Your task to perform on an android device: open app "Airtel Thanks" (install if not already installed) and enter user name: "acclaimed@inbox.com" and password: "dichotomize" Image 0: 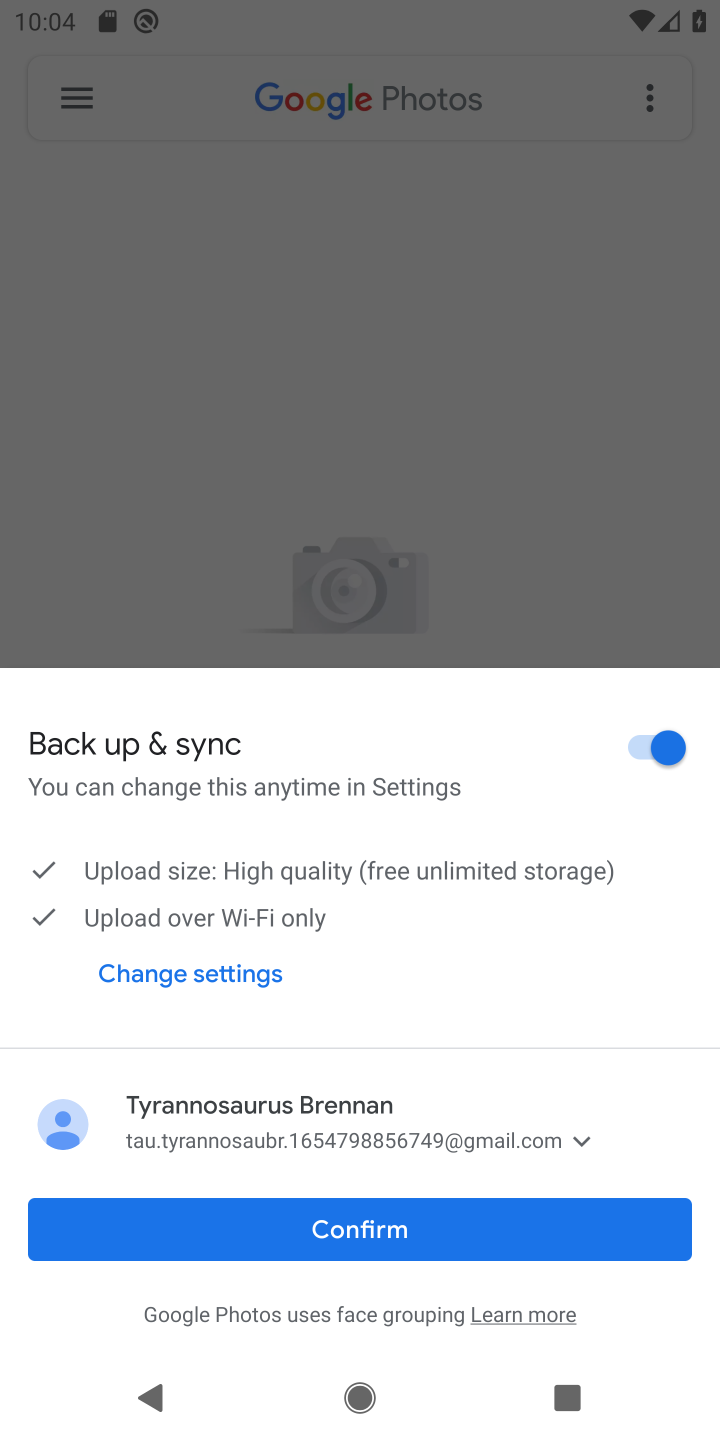
Step 0: press home button
Your task to perform on an android device: open app "Airtel Thanks" (install if not already installed) and enter user name: "acclaimed@inbox.com" and password: "dichotomize" Image 1: 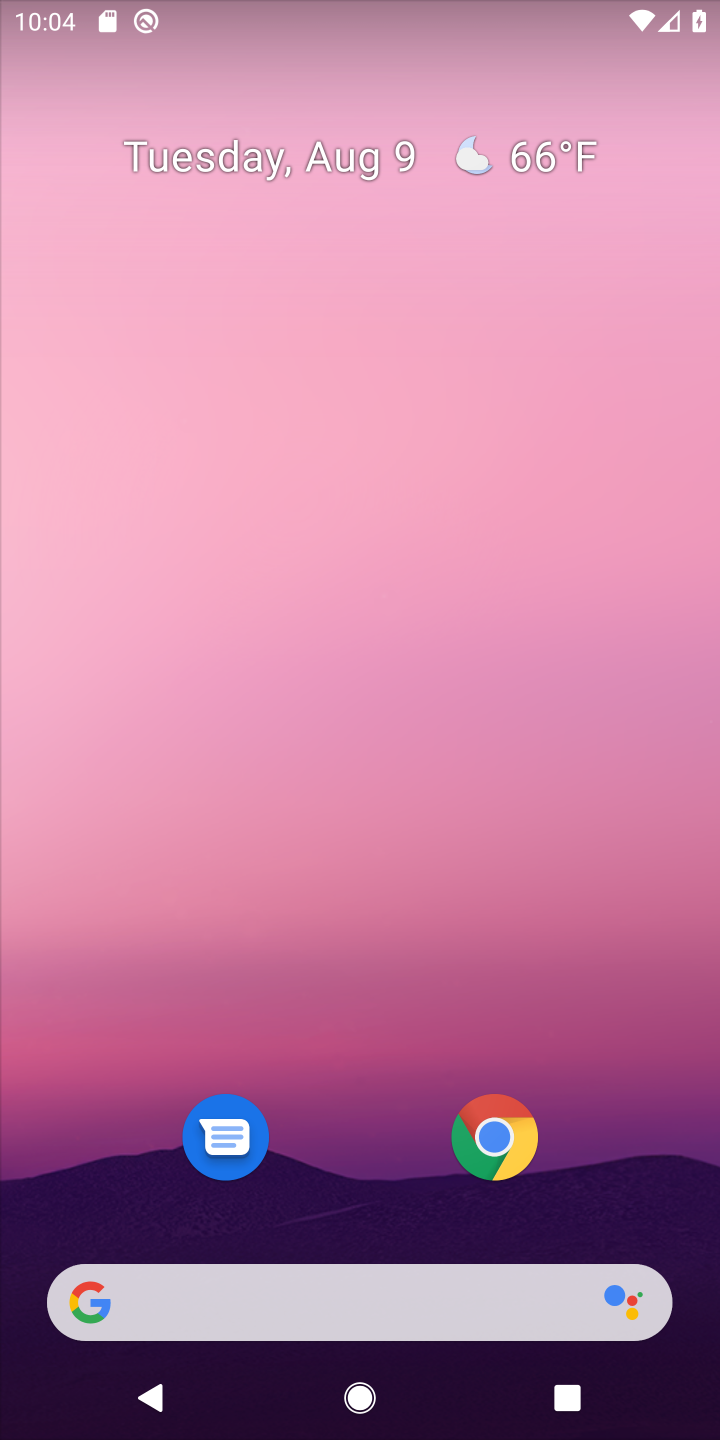
Step 1: drag from (352, 821) to (352, 351)
Your task to perform on an android device: open app "Airtel Thanks" (install if not already installed) and enter user name: "acclaimed@inbox.com" and password: "dichotomize" Image 2: 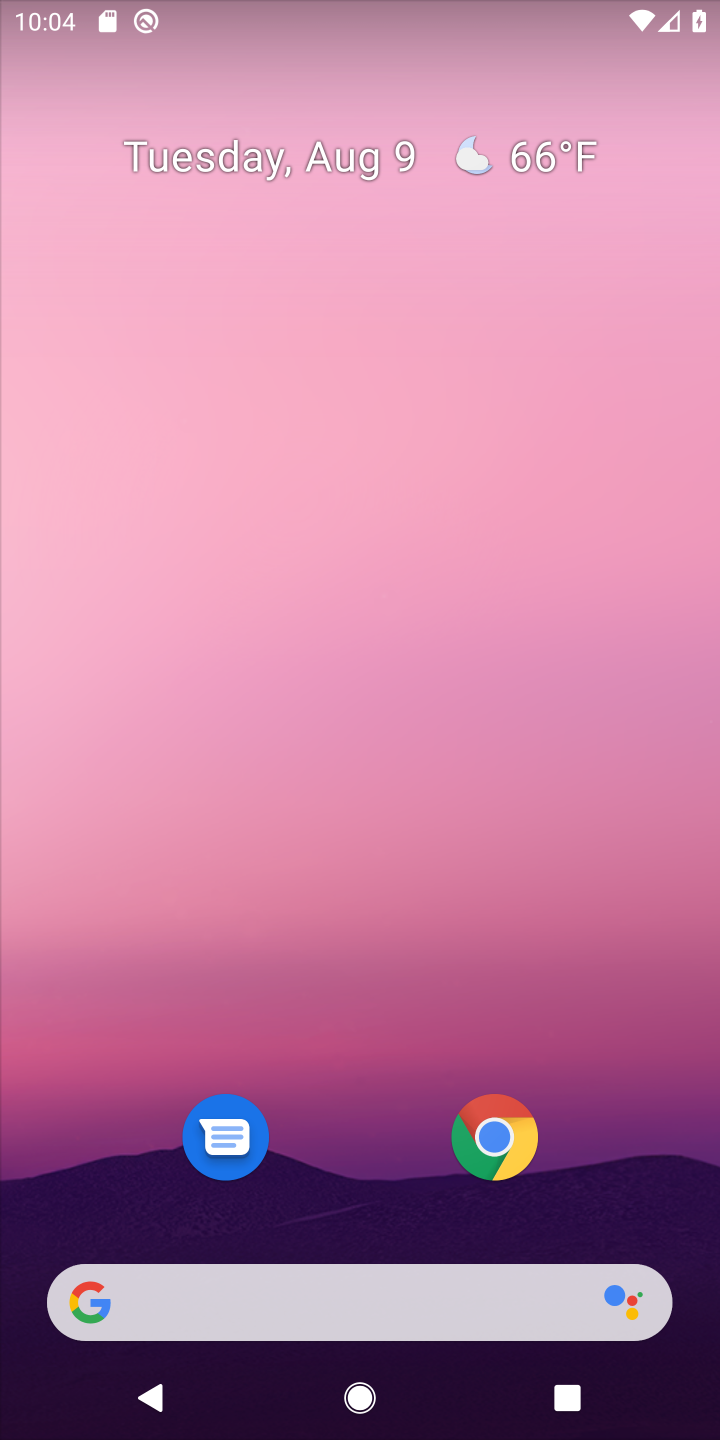
Step 2: drag from (359, 825) to (366, 338)
Your task to perform on an android device: open app "Airtel Thanks" (install if not already installed) and enter user name: "acclaimed@inbox.com" and password: "dichotomize" Image 3: 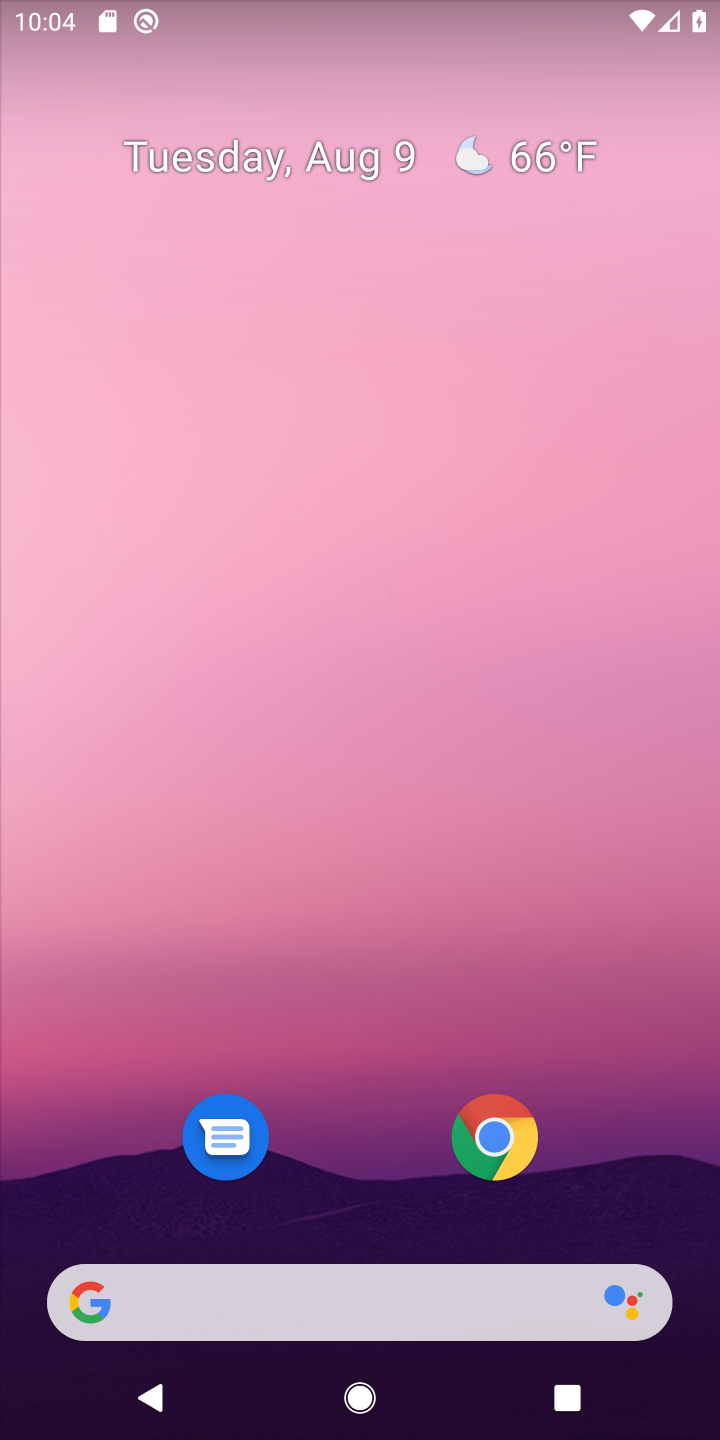
Step 3: drag from (339, 1017) to (339, 313)
Your task to perform on an android device: open app "Airtel Thanks" (install if not already installed) and enter user name: "acclaimed@inbox.com" and password: "dichotomize" Image 4: 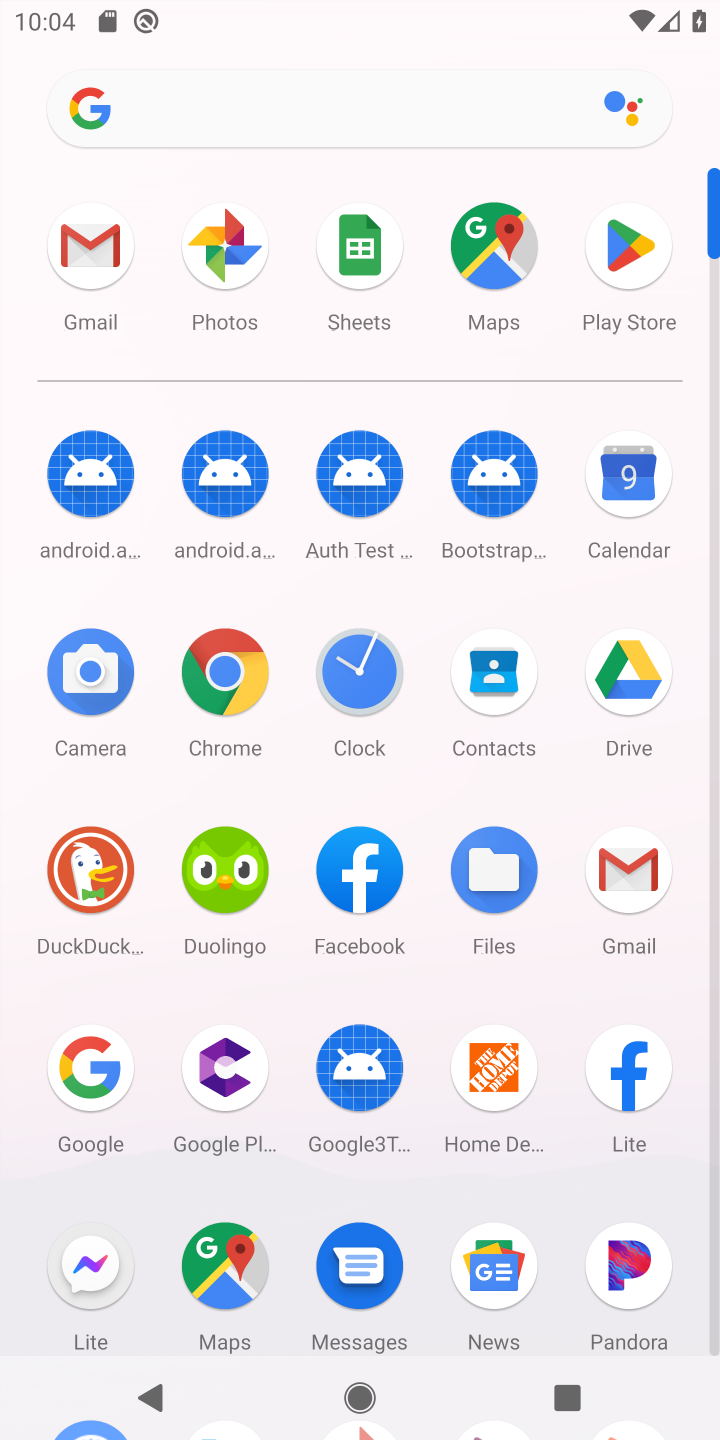
Step 4: click (631, 234)
Your task to perform on an android device: open app "Airtel Thanks" (install if not already installed) and enter user name: "acclaimed@inbox.com" and password: "dichotomize" Image 5: 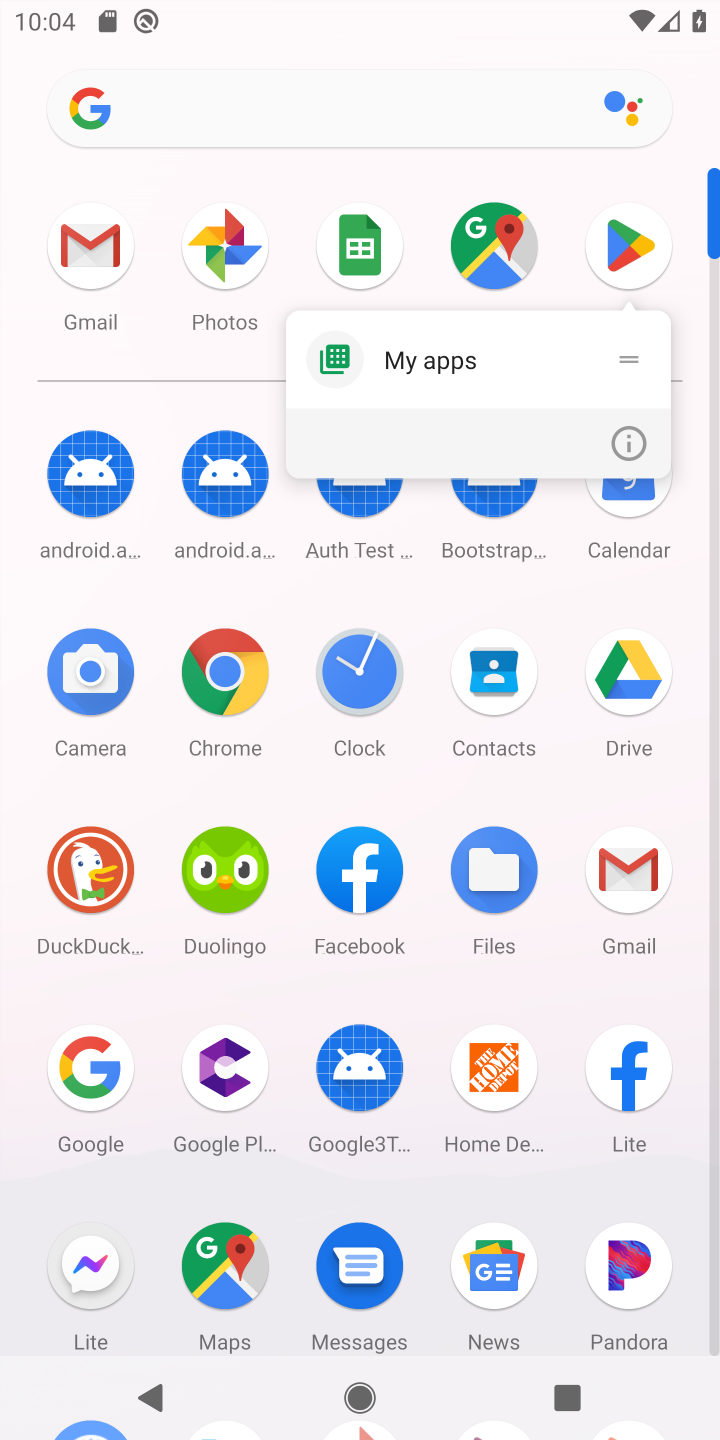
Step 5: click (624, 245)
Your task to perform on an android device: open app "Airtel Thanks" (install if not already installed) and enter user name: "acclaimed@inbox.com" and password: "dichotomize" Image 6: 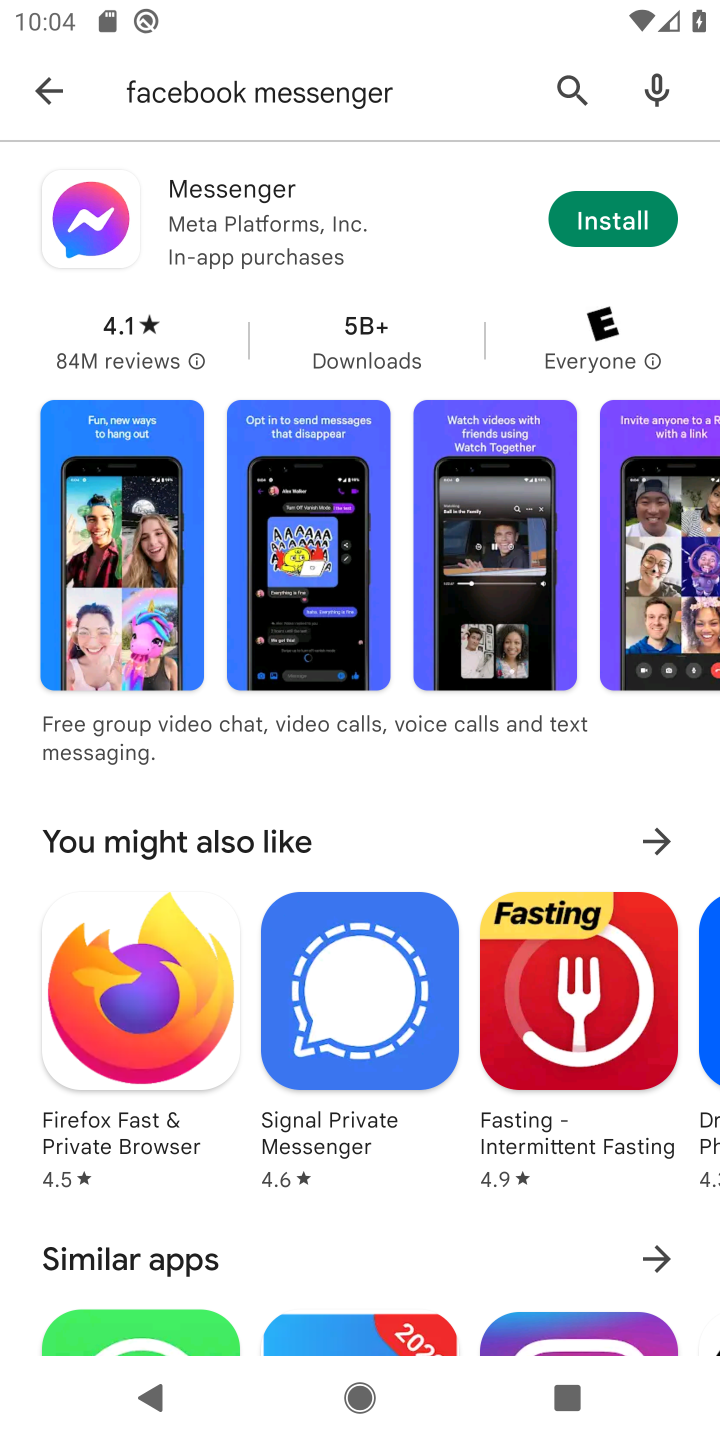
Step 6: click (565, 90)
Your task to perform on an android device: open app "Airtel Thanks" (install if not already installed) and enter user name: "acclaimed@inbox.com" and password: "dichotomize" Image 7: 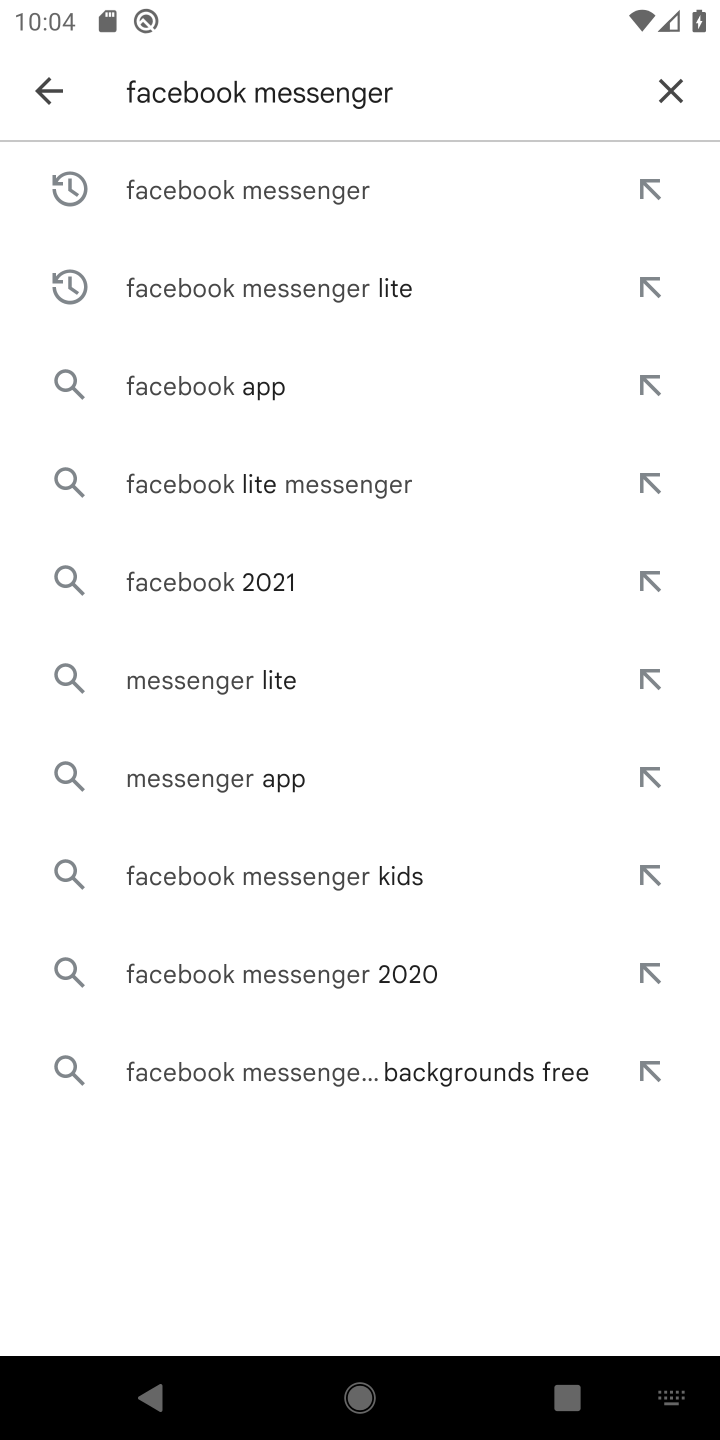
Step 7: click (657, 91)
Your task to perform on an android device: open app "Airtel Thanks" (install if not already installed) and enter user name: "acclaimed@inbox.com" and password: "dichotomize" Image 8: 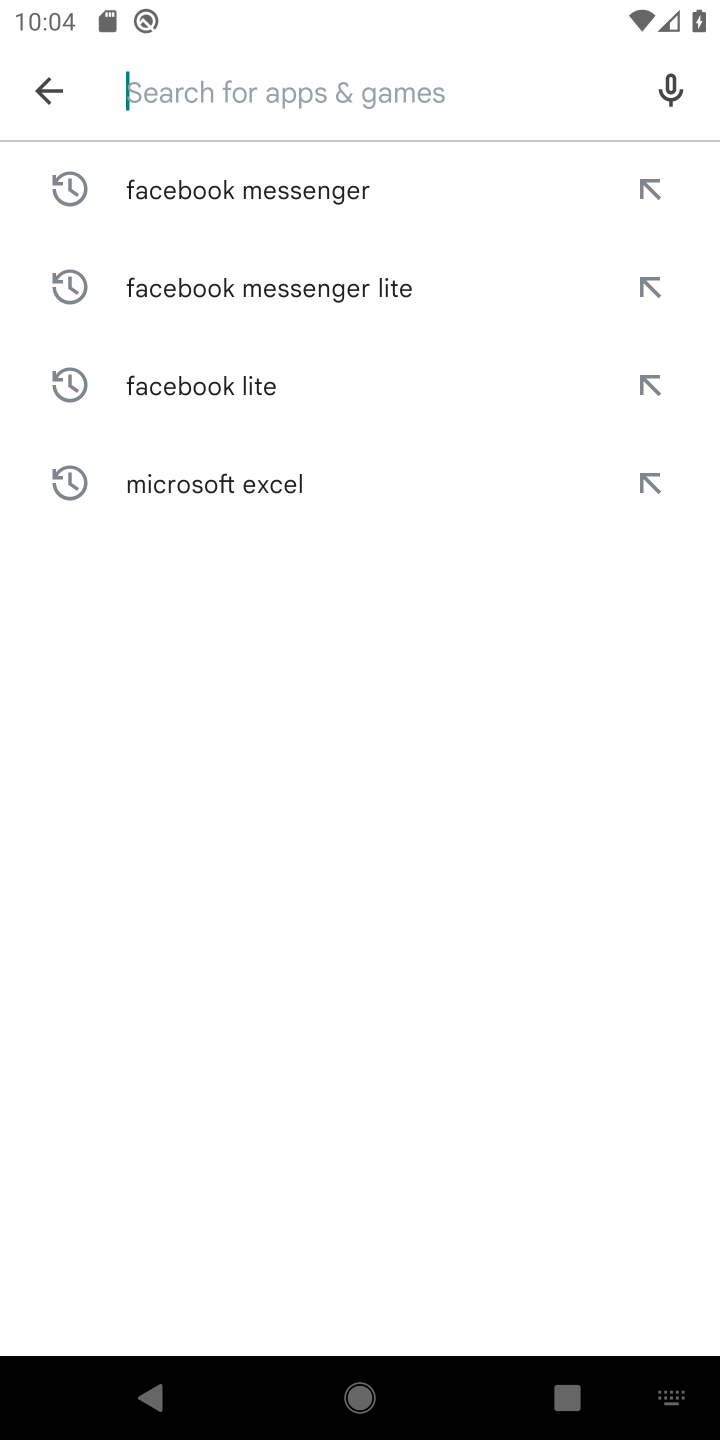
Step 8: type "Airtel Thanks"
Your task to perform on an android device: open app "Airtel Thanks" (install if not already installed) and enter user name: "acclaimed@inbox.com" and password: "dichotomize" Image 9: 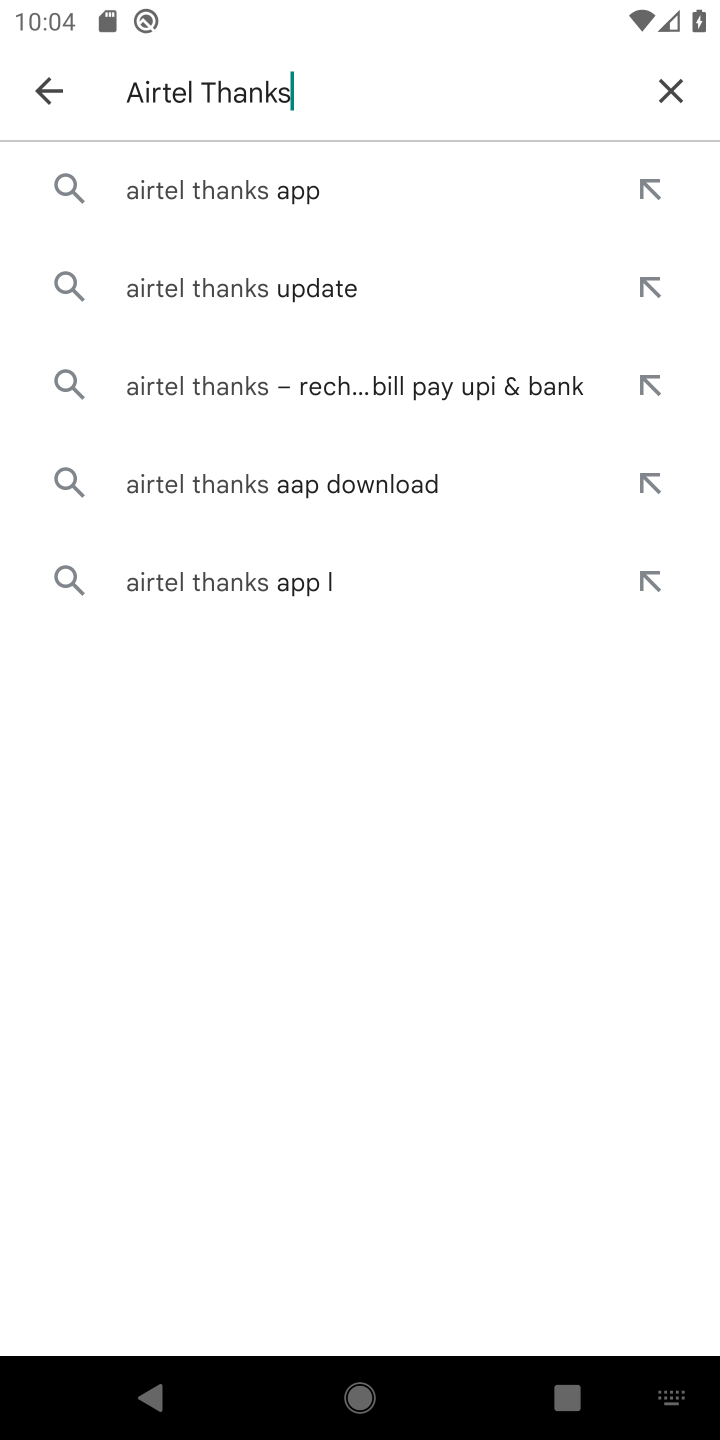
Step 9: click (222, 173)
Your task to perform on an android device: open app "Airtel Thanks" (install if not already installed) and enter user name: "acclaimed@inbox.com" and password: "dichotomize" Image 10: 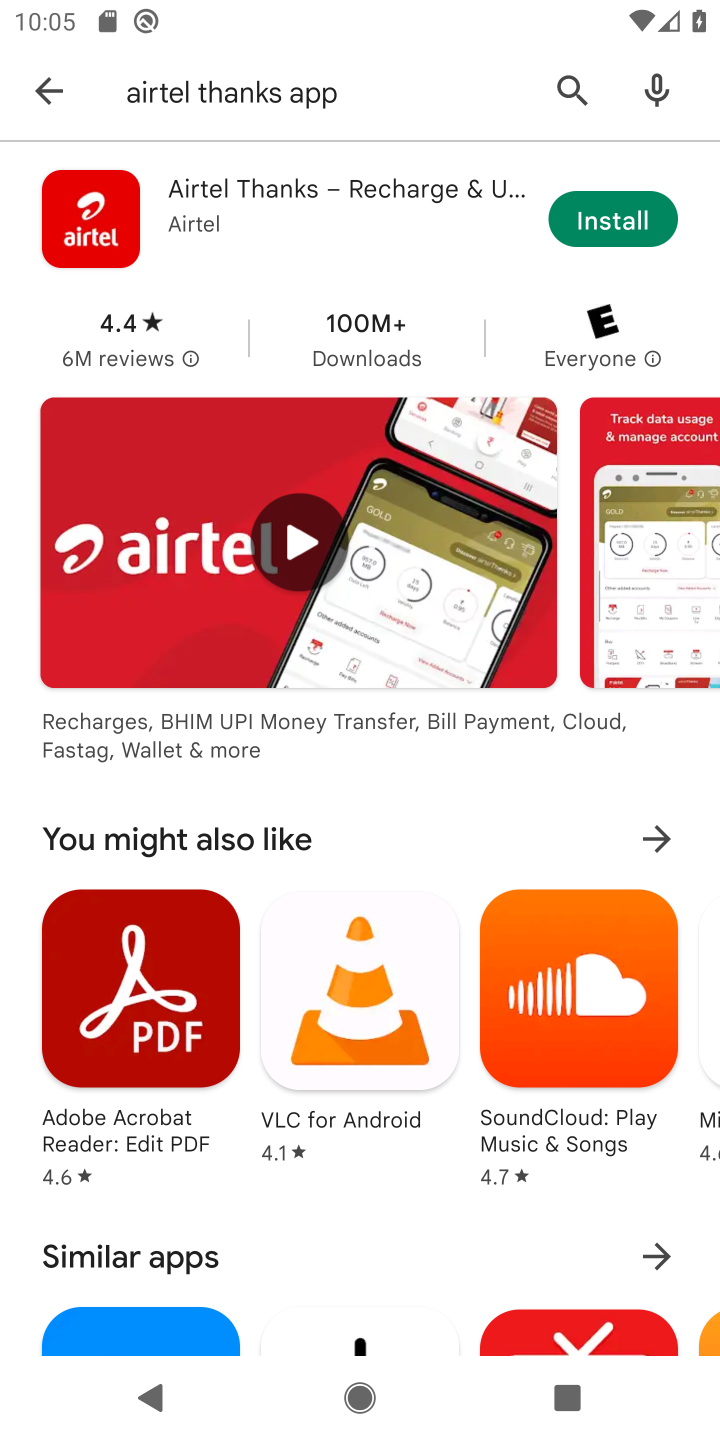
Step 10: click (590, 235)
Your task to perform on an android device: open app "Airtel Thanks" (install if not already installed) and enter user name: "acclaimed@inbox.com" and password: "dichotomize" Image 11: 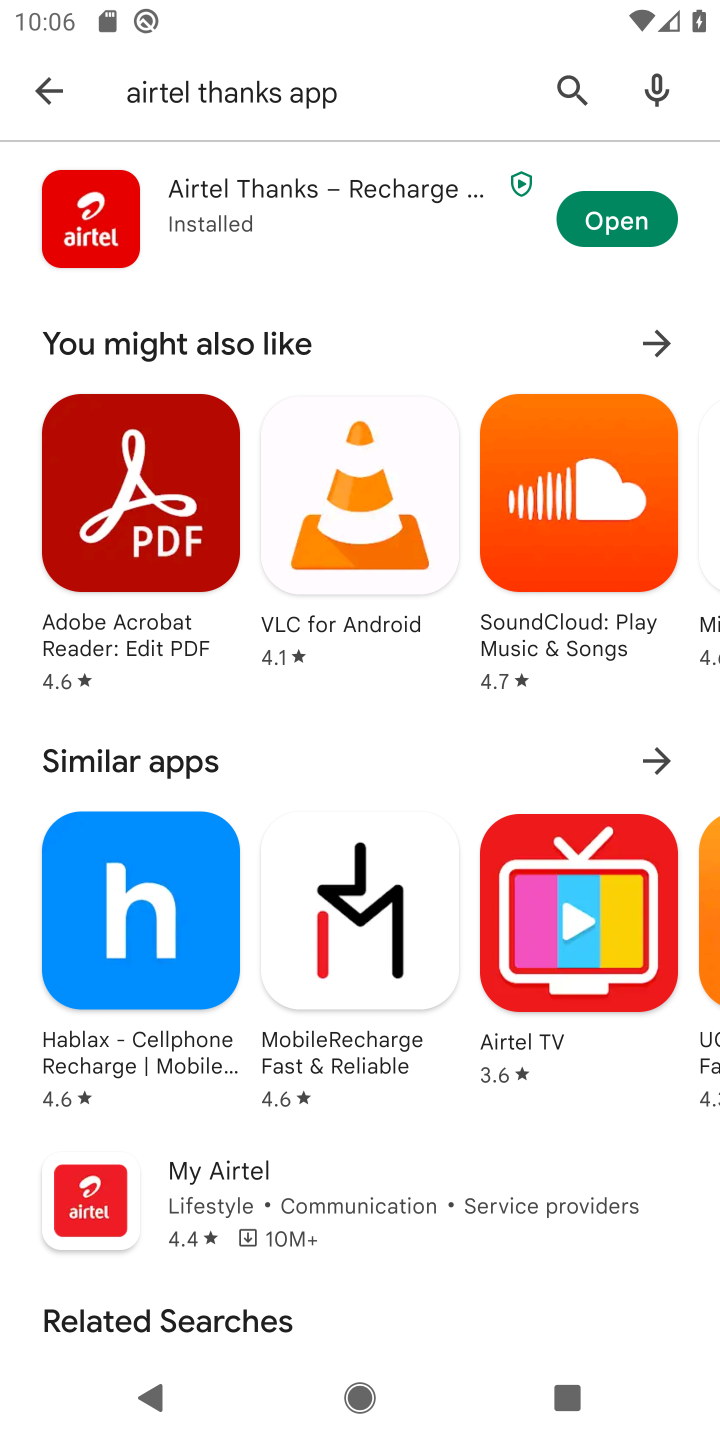
Step 11: click (586, 221)
Your task to perform on an android device: open app "Airtel Thanks" (install if not already installed) and enter user name: "acclaimed@inbox.com" and password: "dichotomize" Image 12: 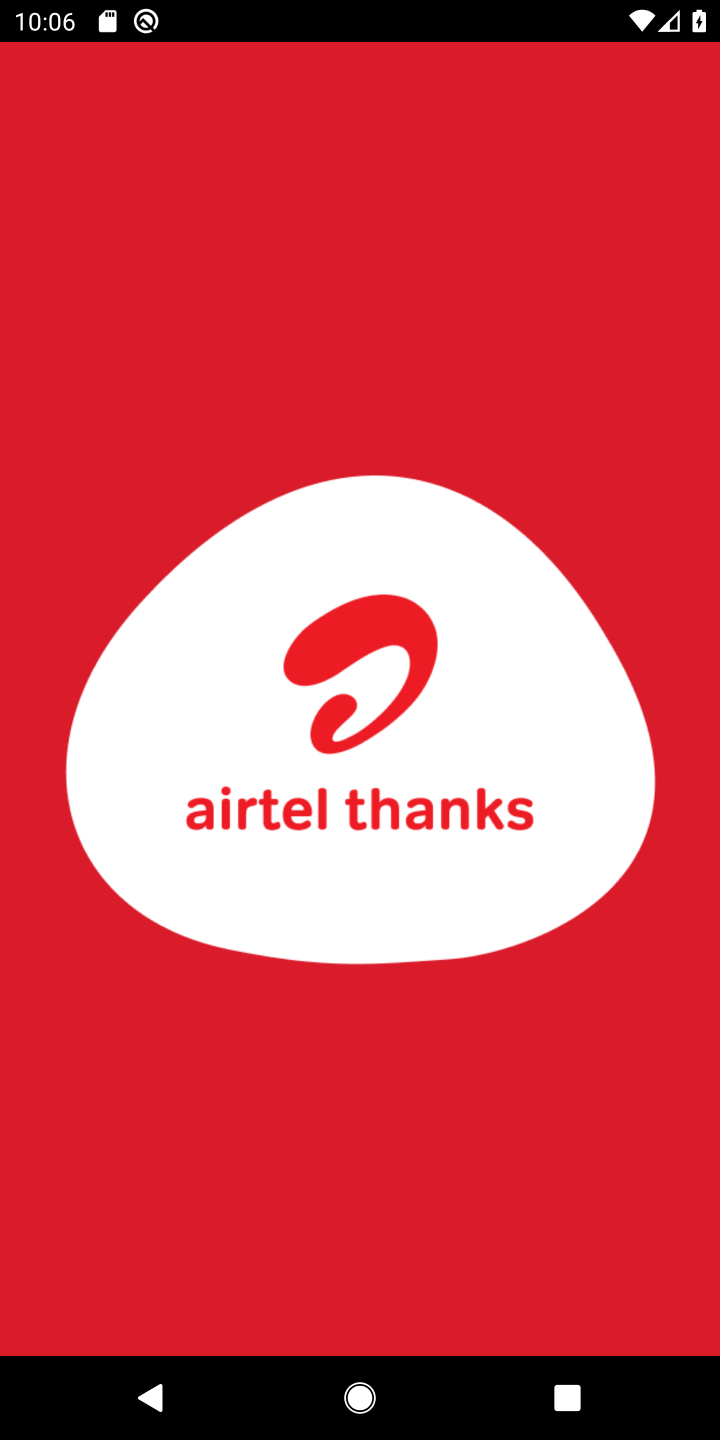
Step 12: task complete